Your task to perform on an android device: refresh tabs in the chrome app Image 0: 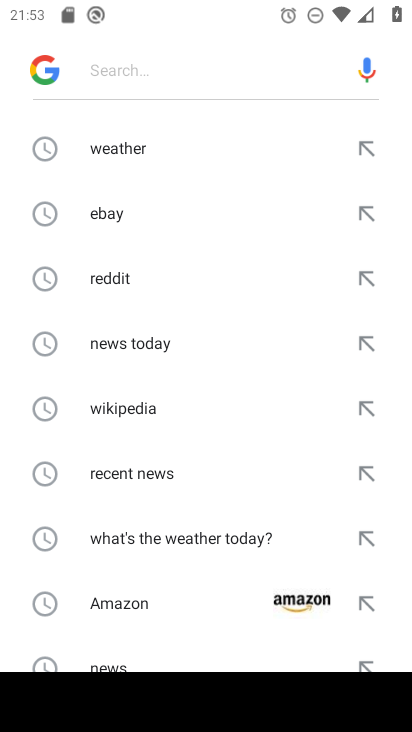
Step 0: press home button
Your task to perform on an android device: refresh tabs in the chrome app Image 1: 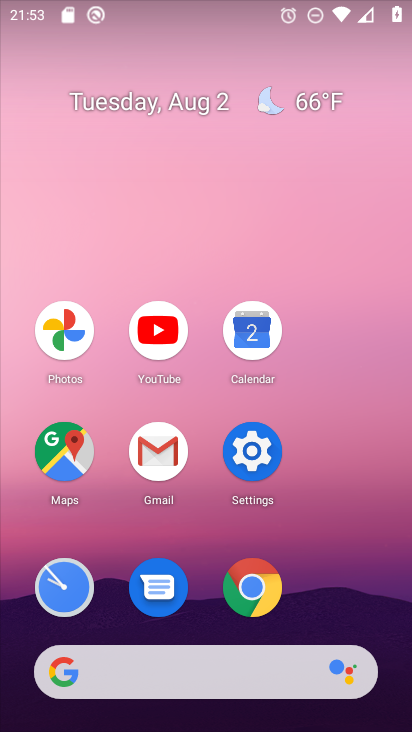
Step 1: click (254, 589)
Your task to perform on an android device: refresh tabs in the chrome app Image 2: 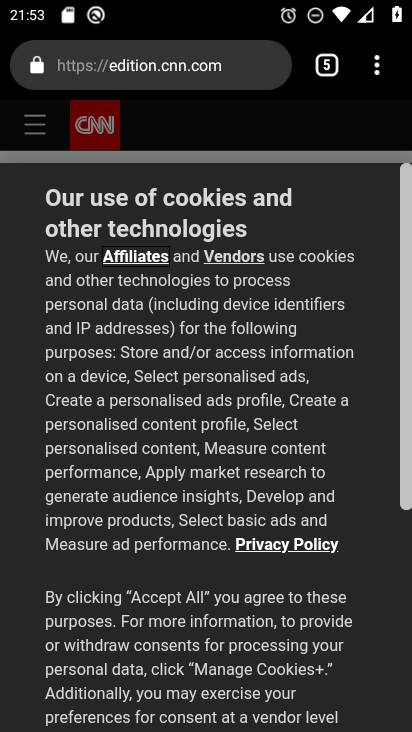
Step 2: click (379, 67)
Your task to perform on an android device: refresh tabs in the chrome app Image 3: 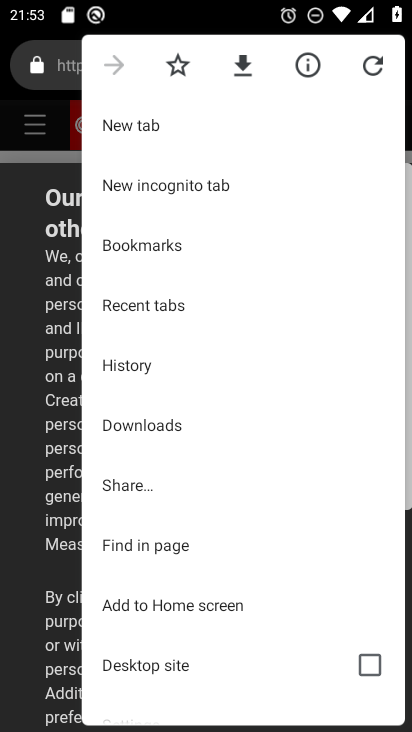
Step 3: click (369, 67)
Your task to perform on an android device: refresh tabs in the chrome app Image 4: 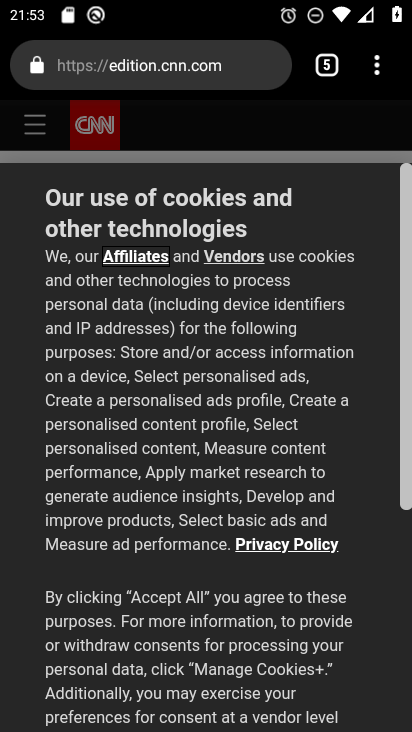
Step 4: task complete